Your task to perform on an android device: toggle notifications settings in the gmail app Image 0: 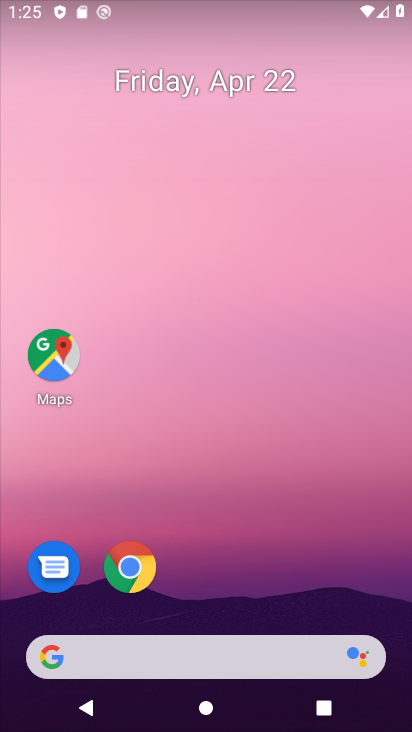
Step 0: drag from (240, 615) to (285, 117)
Your task to perform on an android device: toggle notifications settings in the gmail app Image 1: 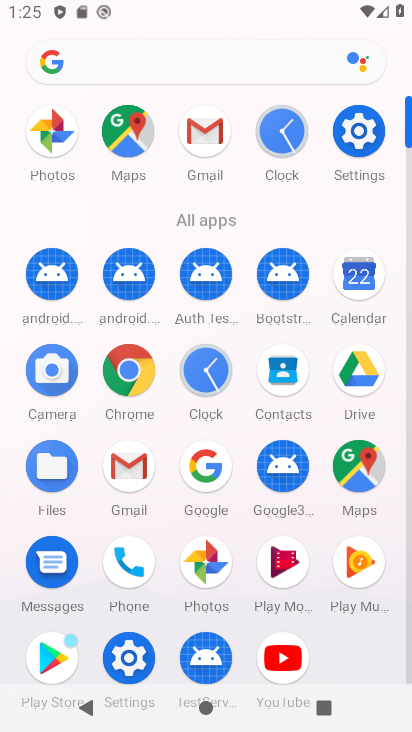
Step 1: click (132, 479)
Your task to perform on an android device: toggle notifications settings in the gmail app Image 2: 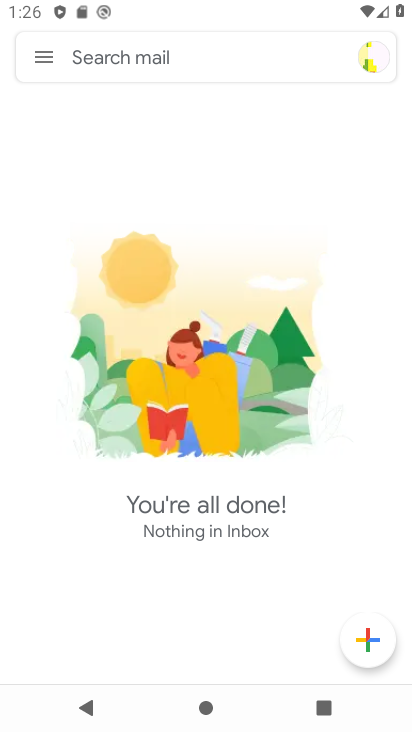
Step 2: click (45, 52)
Your task to perform on an android device: toggle notifications settings in the gmail app Image 3: 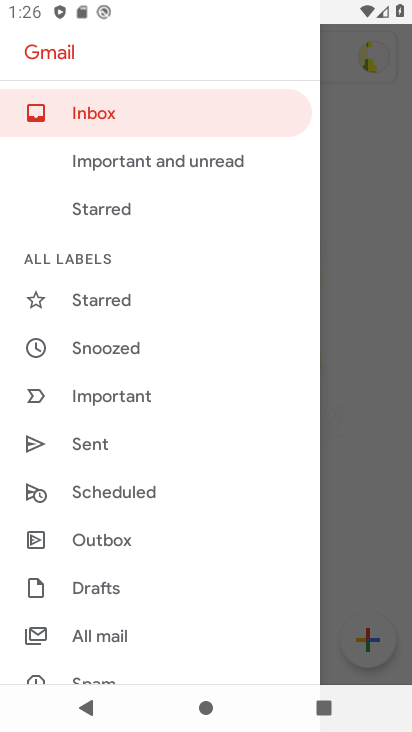
Step 3: drag from (190, 589) to (222, 209)
Your task to perform on an android device: toggle notifications settings in the gmail app Image 4: 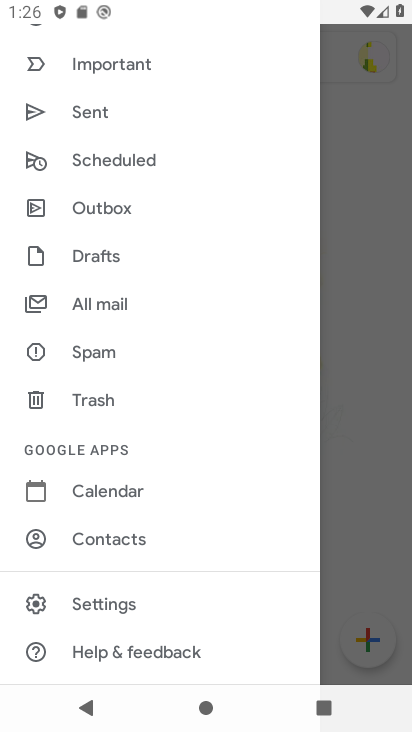
Step 4: click (146, 608)
Your task to perform on an android device: toggle notifications settings in the gmail app Image 5: 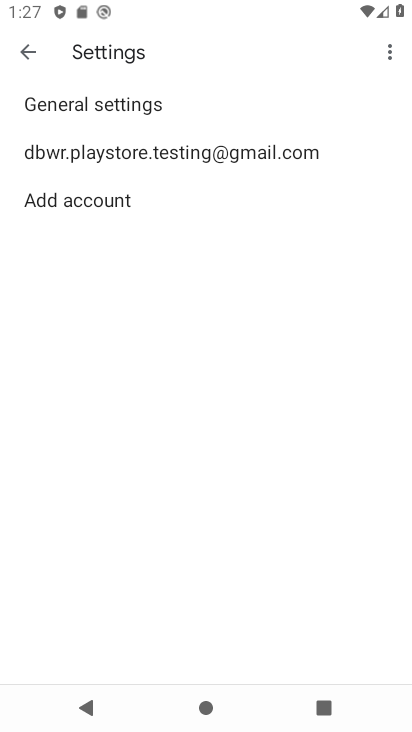
Step 5: click (174, 148)
Your task to perform on an android device: toggle notifications settings in the gmail app Image 6: 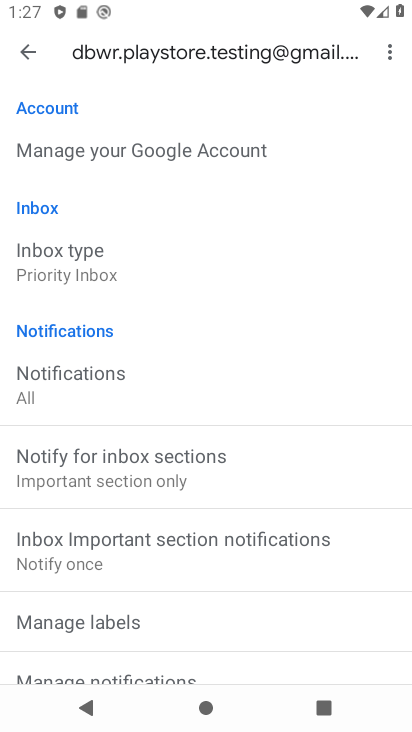
Step 6: click (117, 367)
Your task to perform on an android device: toggle notifications settings in the gmail app Image 7: 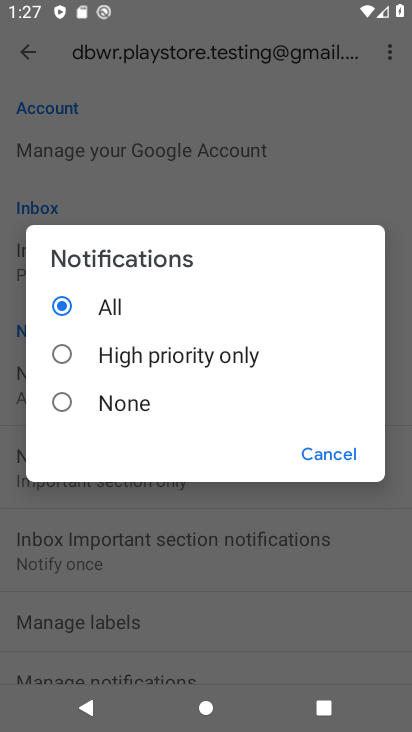
Step 7: click (111, 354)
Your task to perform on an android device: toggle notifications settings in the gmail app Image 8: 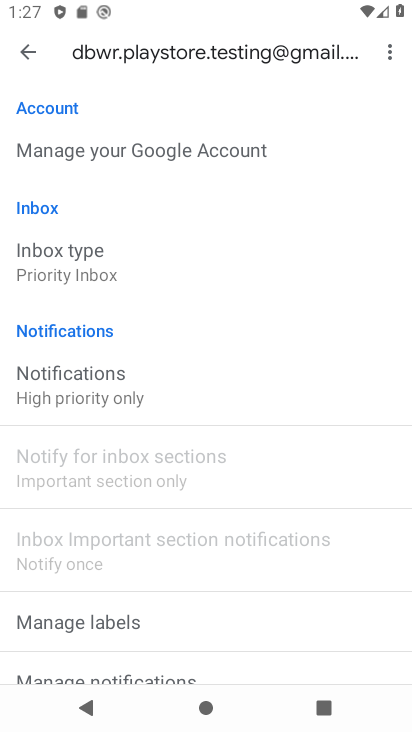
Step 8: task complete